Your task to perform on an android device: Go to Google Image 0: 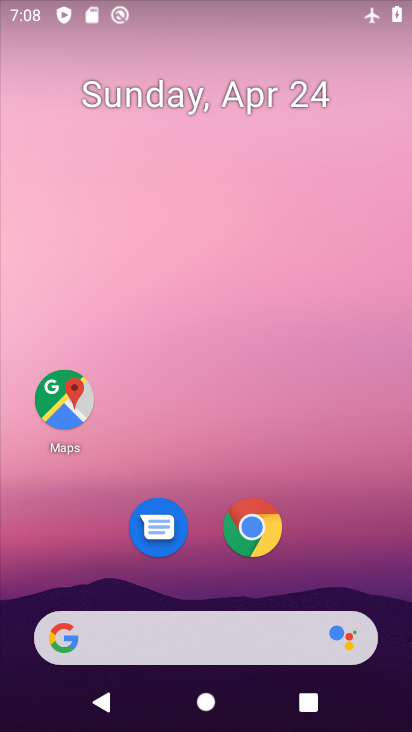
Step 0: drag from (400, 586) to (267, 43)
Your task to perform on an android device: Go to Google Image 1: 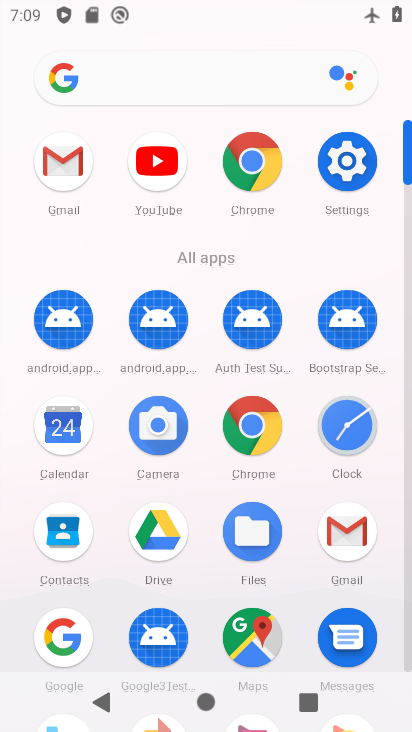
Step 1: click (48, 648)
Your task to perform on an android device: Go to Google Image 2: 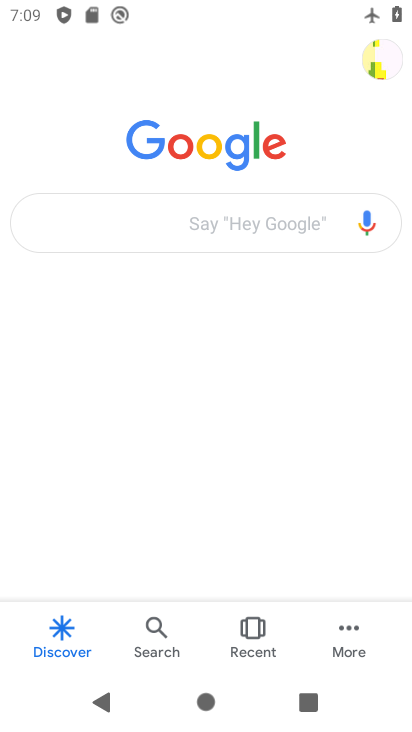
Step 2: task complete